Your task to perform on an android device: What's the weather going to be tomorrow? Image 0: 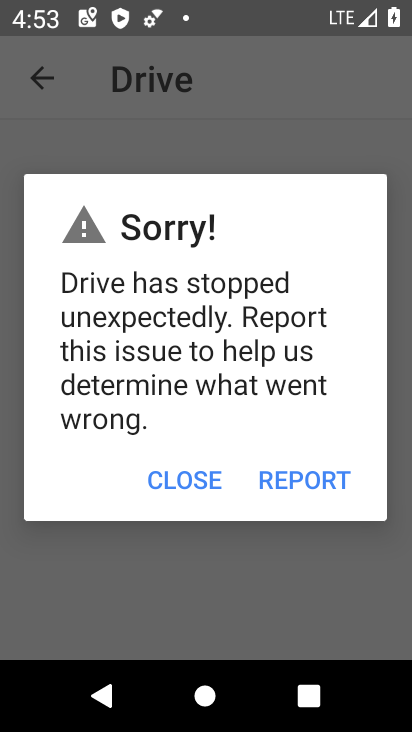
Step 0: press back button
Your task to perform on an android device: What's the weather going to be tomorrow? Image 1: 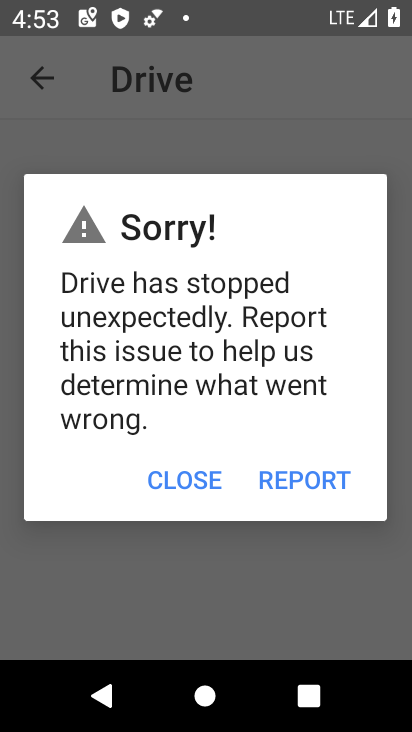
Step 1: press home button
Your task to perform on an android device: What's the weather going to be tomorrow? Image 2: 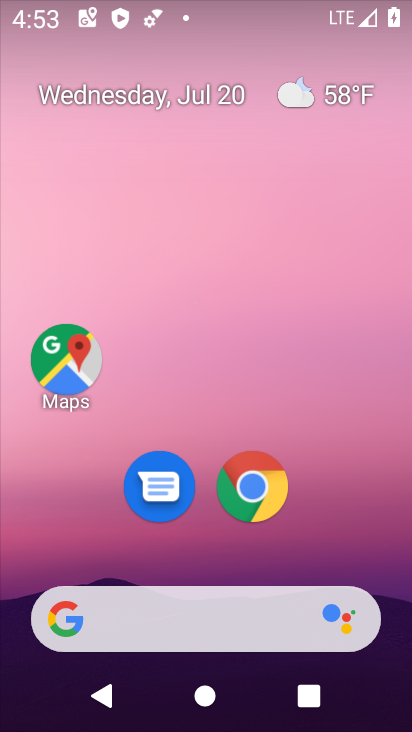
Step 2: click (159, 626)
Your task to perform on an android device: What's the weather going to be tomorrow? Image 3: 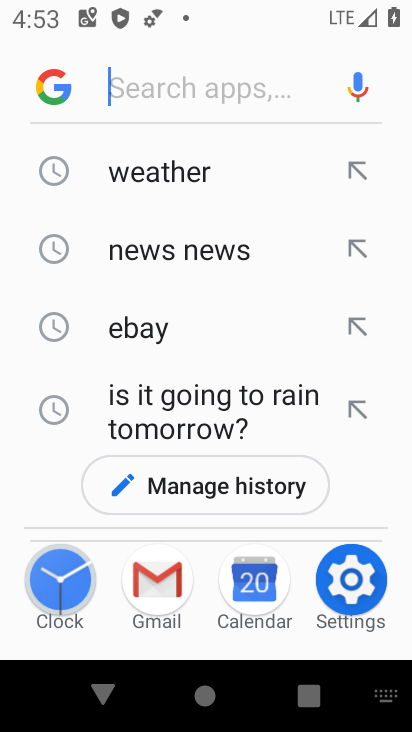
Step 3: click (169, 167)
Your task to perform on an android device: What's the weather going to be tomorrow? Image 4: 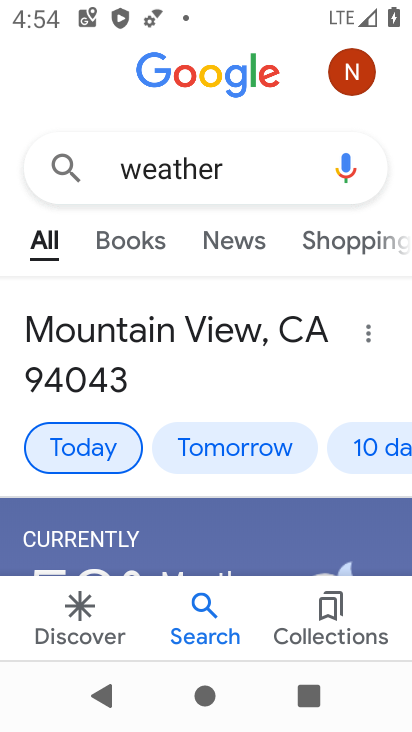
Step 4: click (233, 441)
Your task to perform on an android device: What's the weather going to be tomorrow? Image 5: 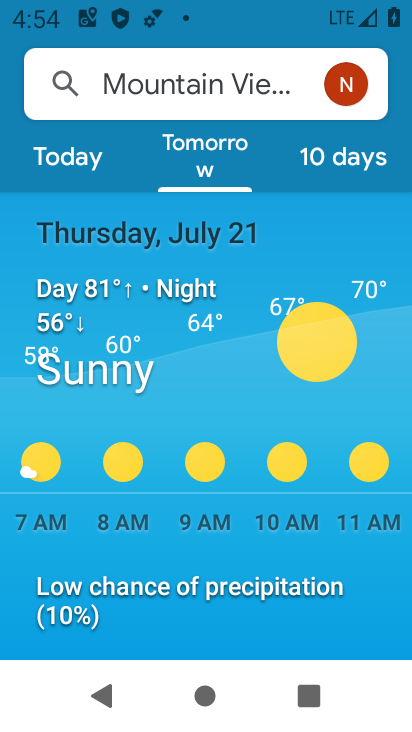
Step 5: task complete